Your task to perform on an android device: check data usage Image 0: 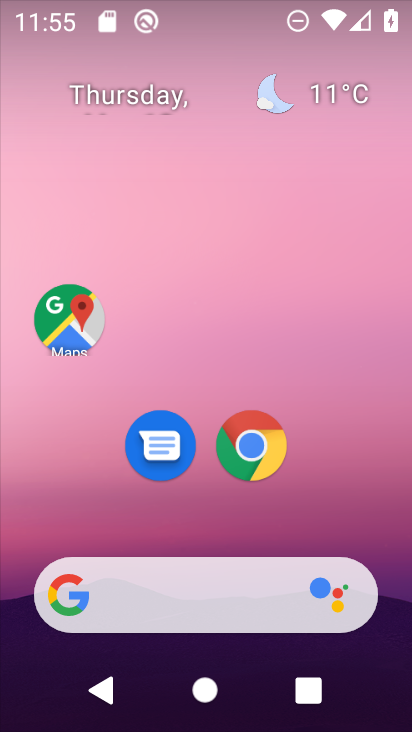
Step 0: drag from (247, 598) to (230, 147)
Your task to perform on an android device: check data usage Image 1: 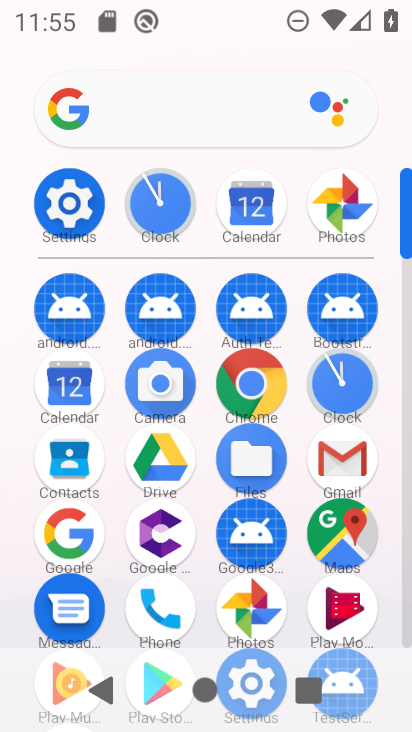
Step 1: click (61, 211)
Your task to perform on an android device: check data usage Image 2: 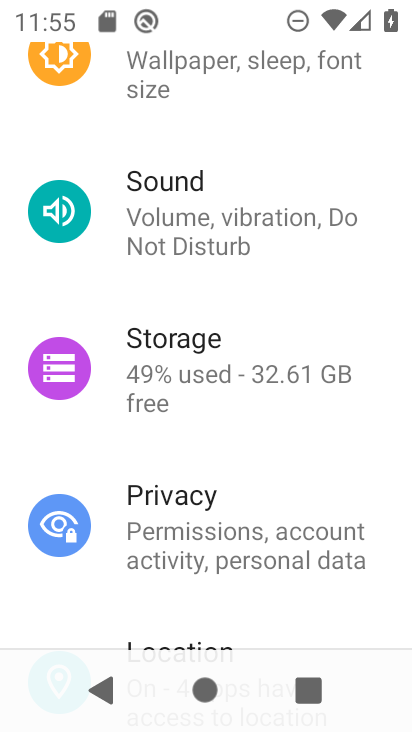
Step 2: drag from (249, 114) to (217, 516)
Your task to perform on an android device: check data usage Image 3: 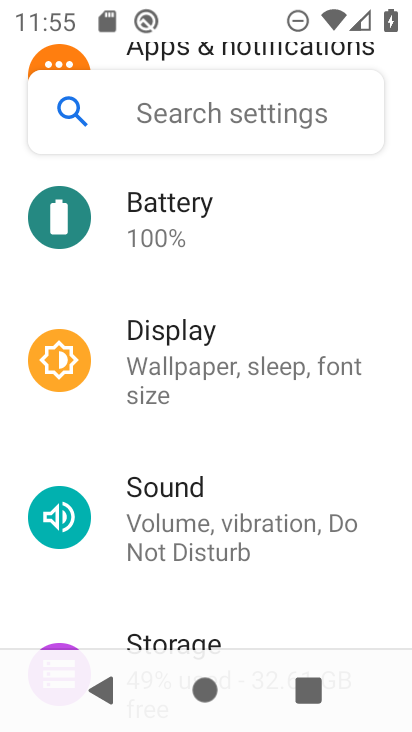
Step 3: drag from (122, 323) to (113, 708)
Your task to perform on an android device: check data usage Image 4: 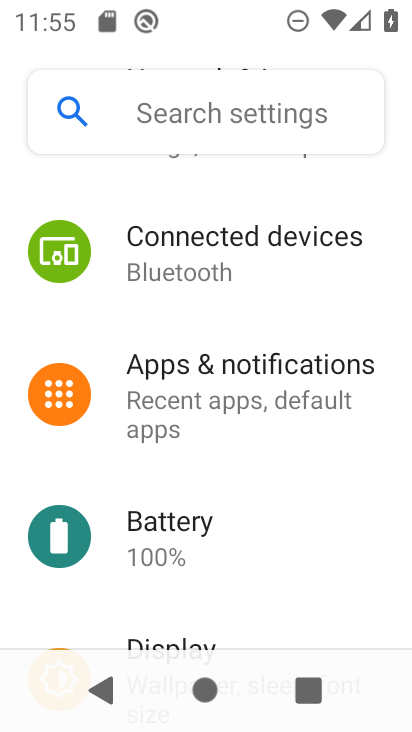
Step 4: drag from (123, 294) to (120, 727)
Your task to perform on an android device: check data usage Image 5: 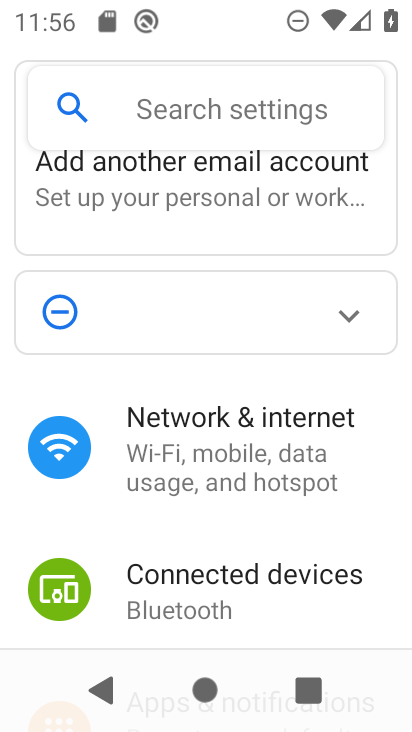
Step 5: click (188, 483)
Your task to perform on an android device: check data usage Image 6: 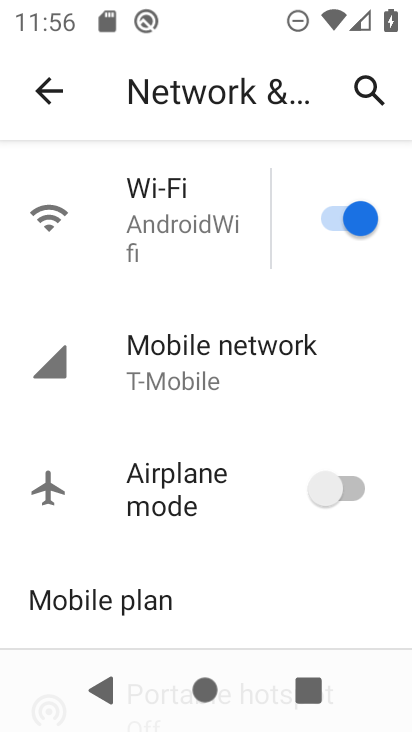
Step 6: click (168, 381)
Your task to perform on an android device: check data usage Image 7: 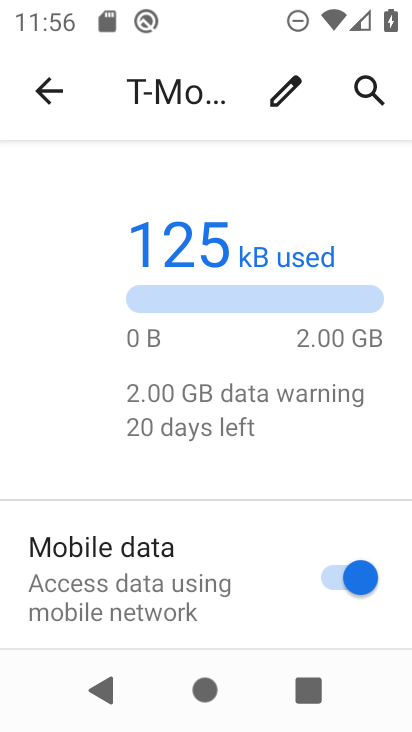
Step 7: press home button
Your task to perform on an android device: check data usage Image 8: 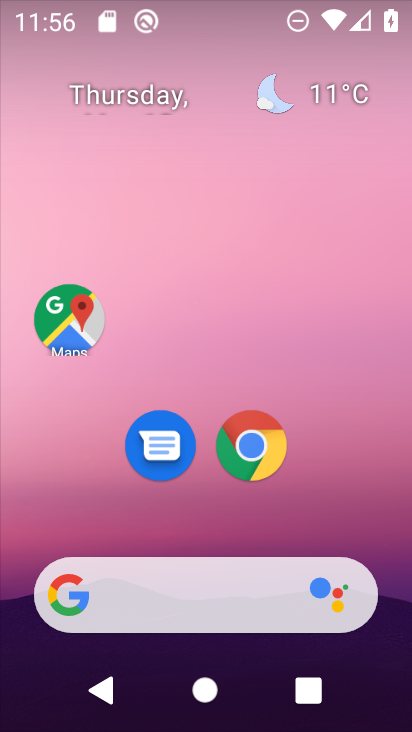
Step 8: drag from (188, 595) to (189, 60)
Your task to perform on an android device: check data usage Image 9: 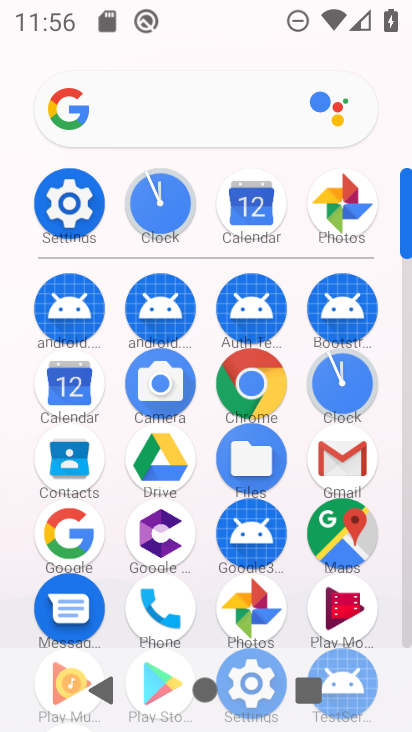
Step 9: click (64, 251)
Your task to perform on an android device: check data usage Image 10: 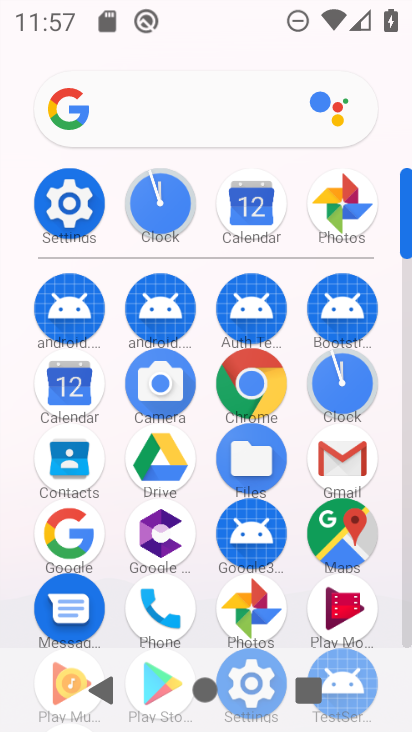
Step 10: click (69, 214)
Your task to perform on an android device: check data usage Image 11: 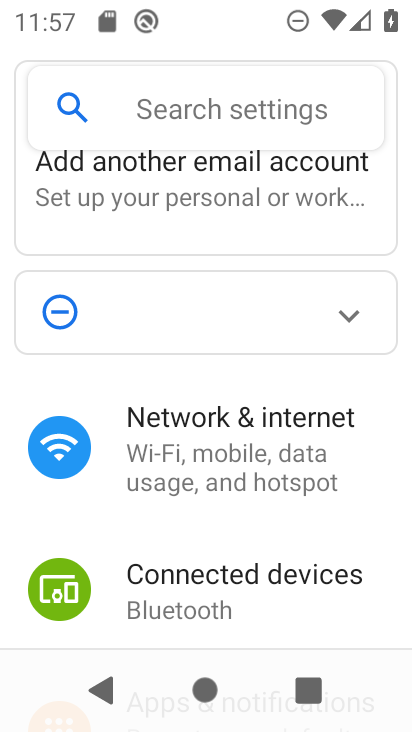
Step 11: click (193, 459)
Your task to perform on an android device: check data usage Image 12: 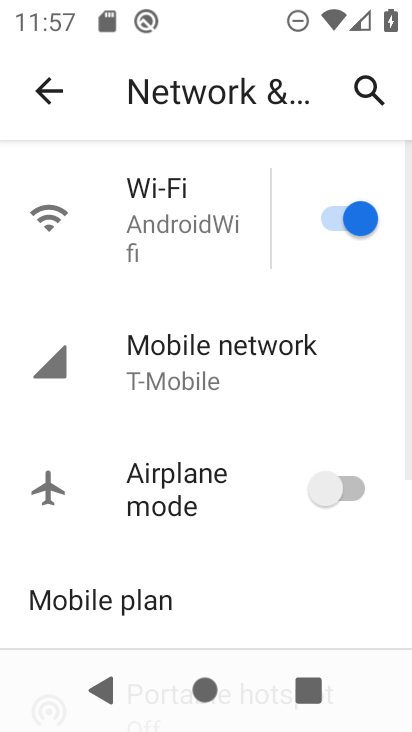
Step 12: click (186, 361)
Your task to perform on an android device: check data usage Image 13: 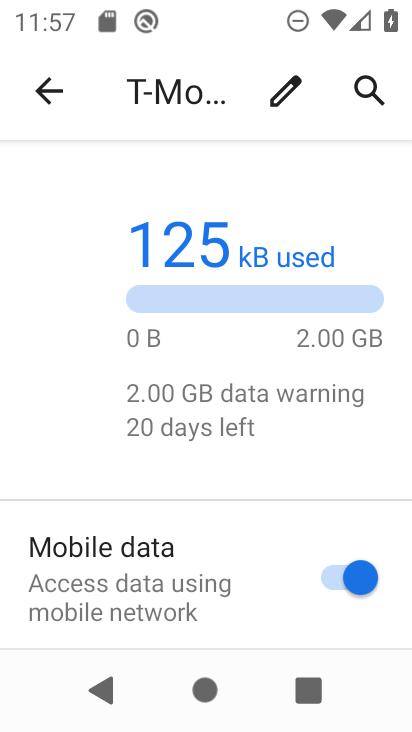
Step 13: task complete